Your task to perform on an android device: toggle data saver in the chrome app Image 0: 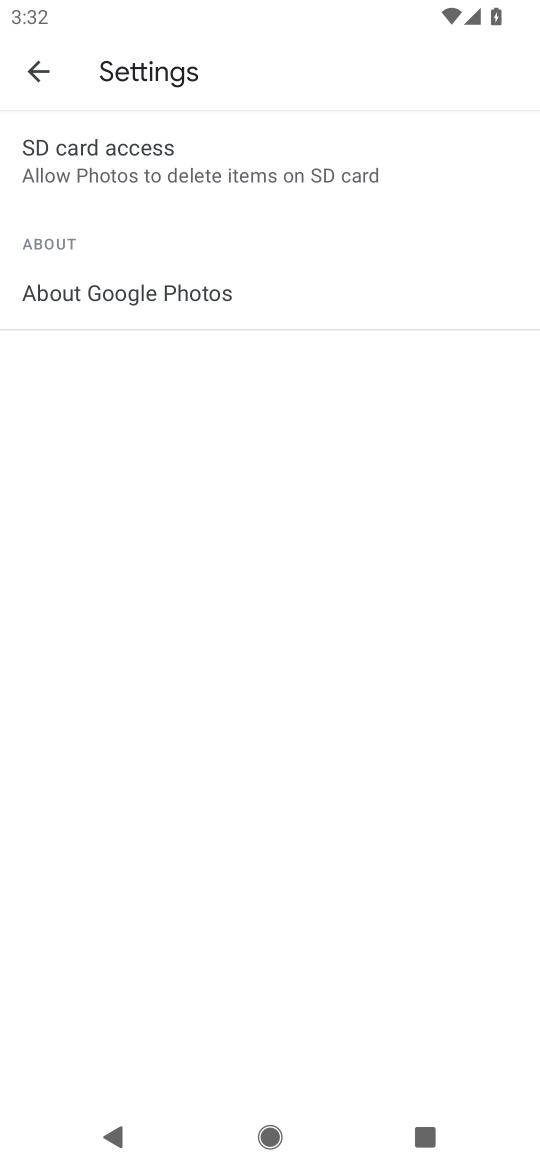
Step 0: press back button
Your task to perform on an android device: toggle data saver in the chrome app Image 1: 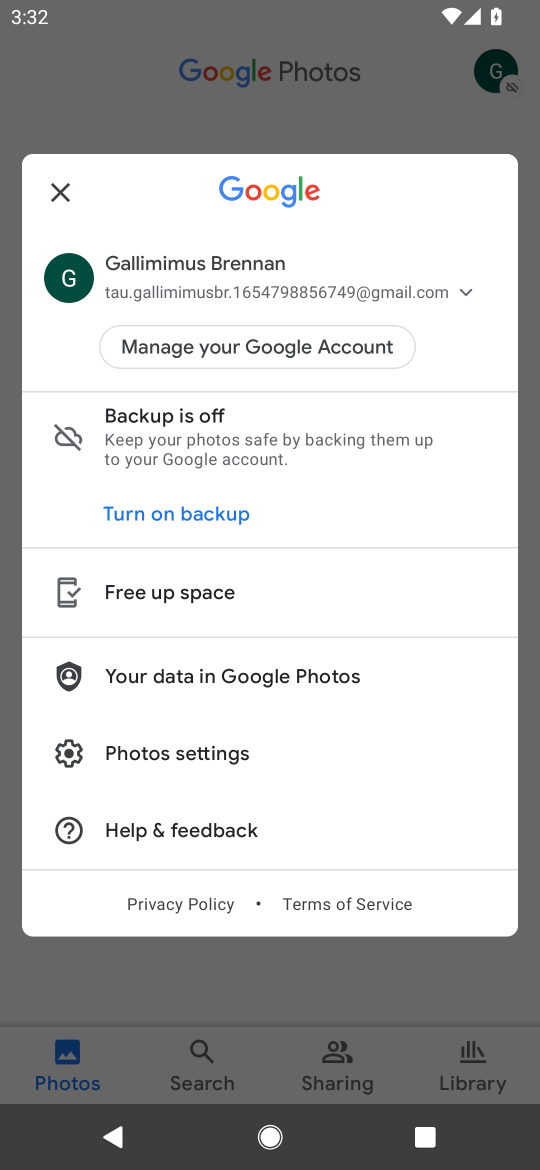
Step 1: press home button
Your task to perform on an android device: toggle data saver in the chrome app Image 2: 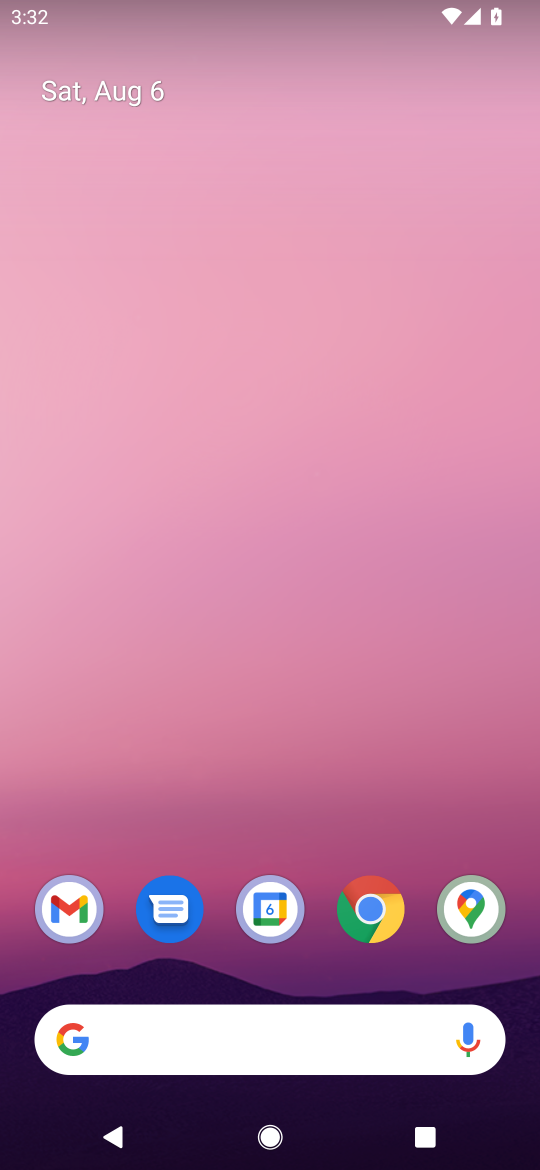
Step 2: click (371, 911)
Your task to perform on an android device: toggle data saver in the chrome app Image 3: 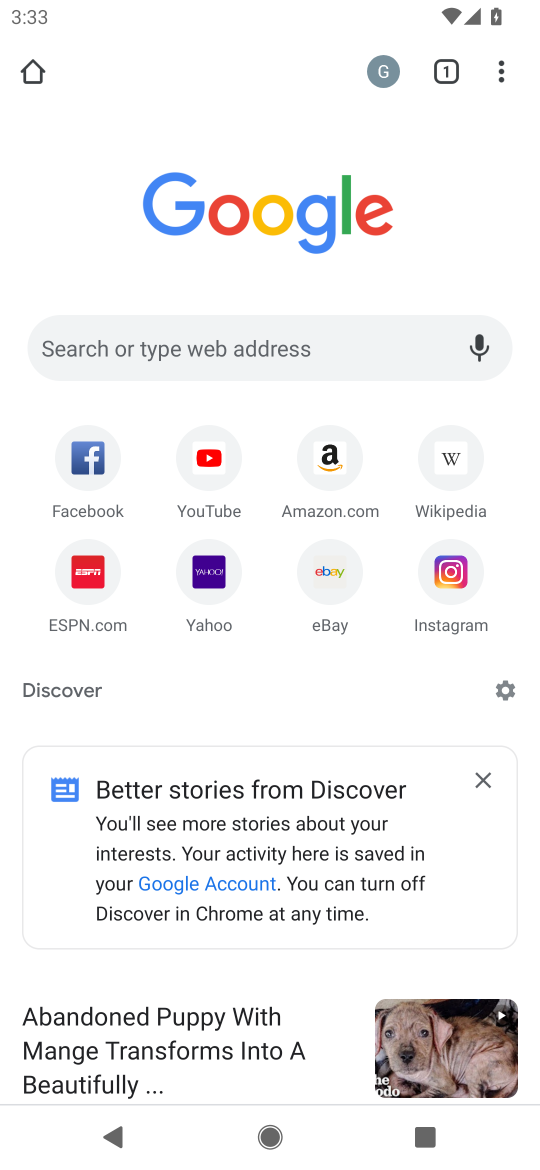
Step 3: drag from (492, 61) to (288, 726)
Your task to perform on an android device: toggle data saver in the chrome app Image 4: 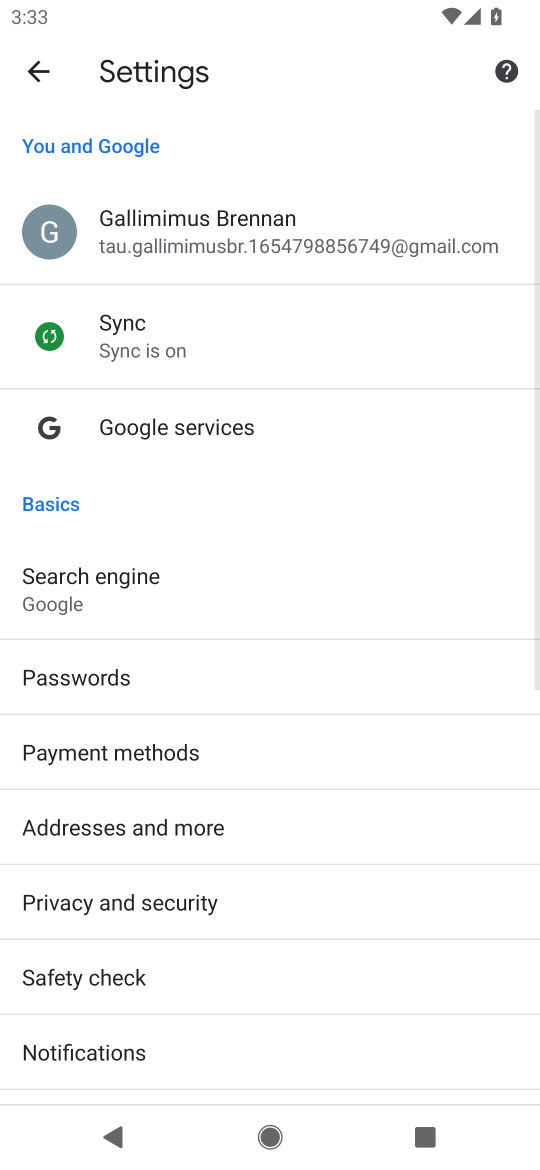
Step 4: drag from (193, 987) to (448, 157)
Your task to perform on an android device: toggle data saver in the chrome app Image 5: 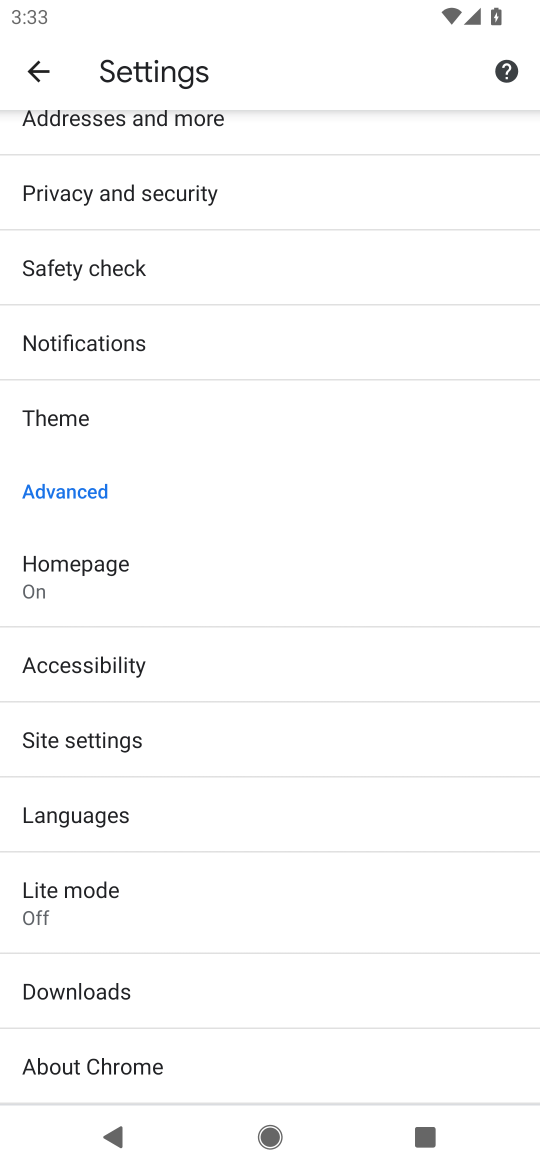
Step 5: click (162, 900)
Your task to perform on an android device: toggle data saver in the chrome app Image 6: 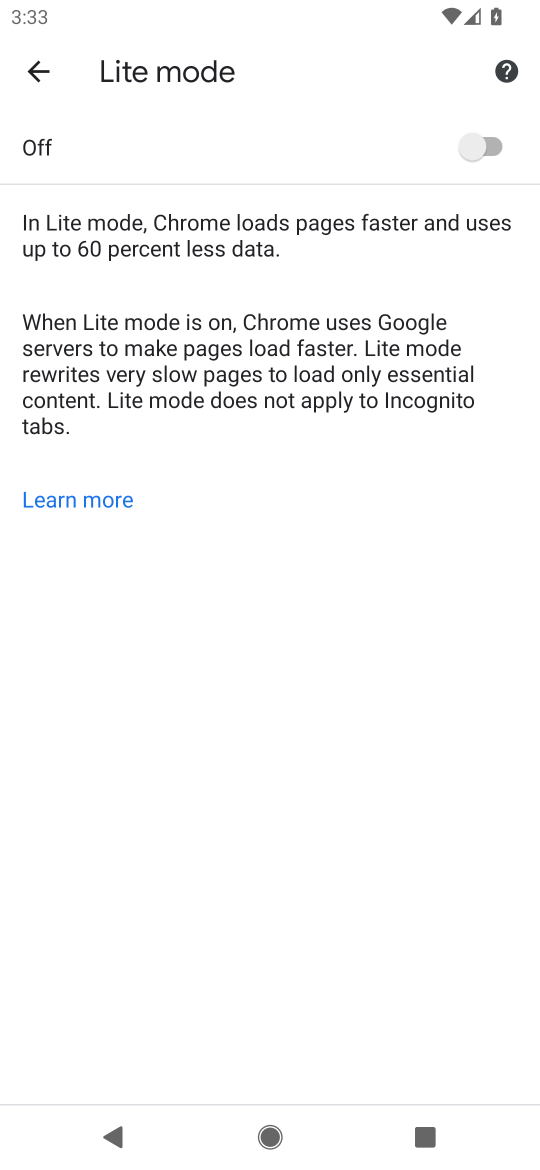
Step 6: click (486, 155)
Your task to perform on an android device: toggle data saver in the chrome app Image 7: 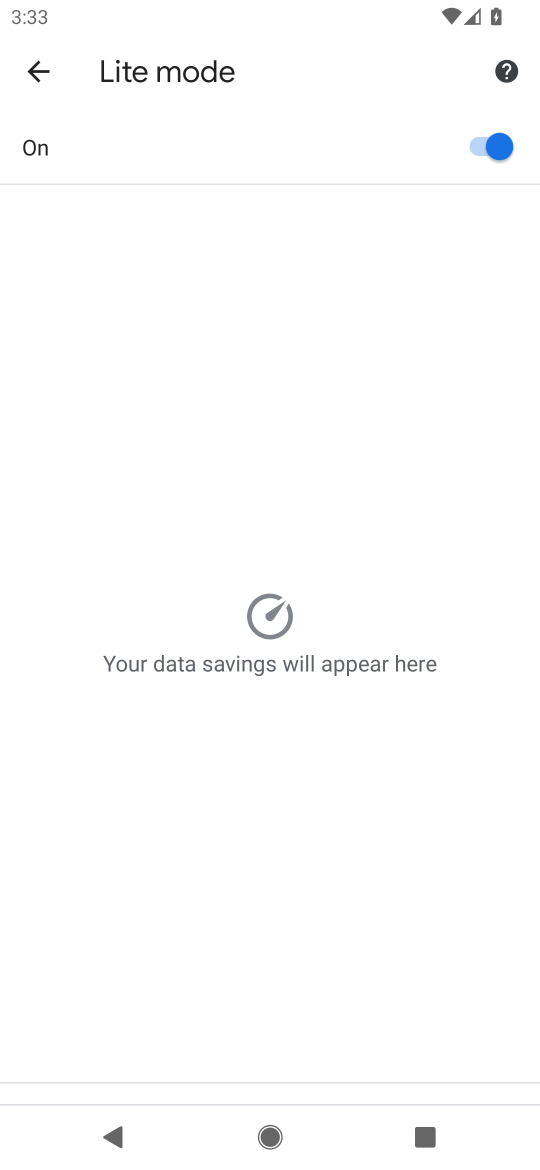
Step 7: task complete